Your task to perform on an android device: add a contact Image 0: 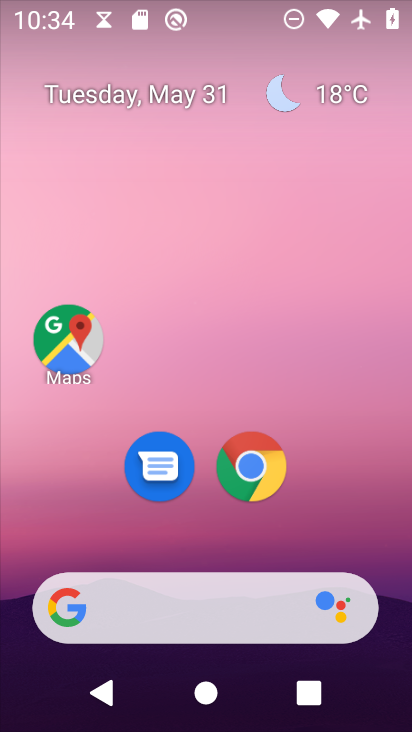
Step 0: drag from (361, 540) to (256, 0)
Your task to perform on an android device: add a contact Image 1: 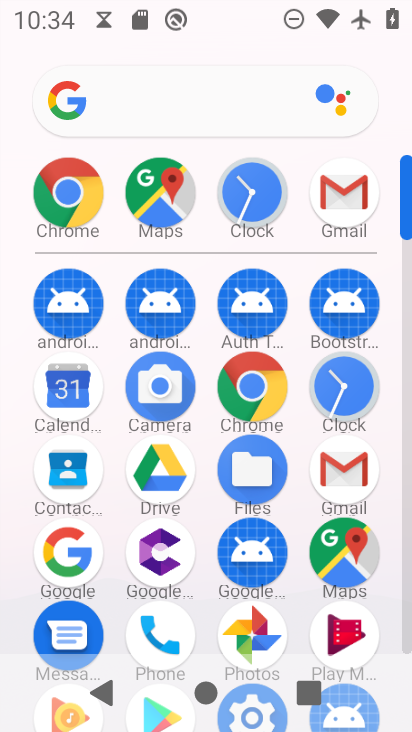
Step 1: drag from (21, 553) to (22, 277)
Your task to perform on an android device: add a contact Image 2: 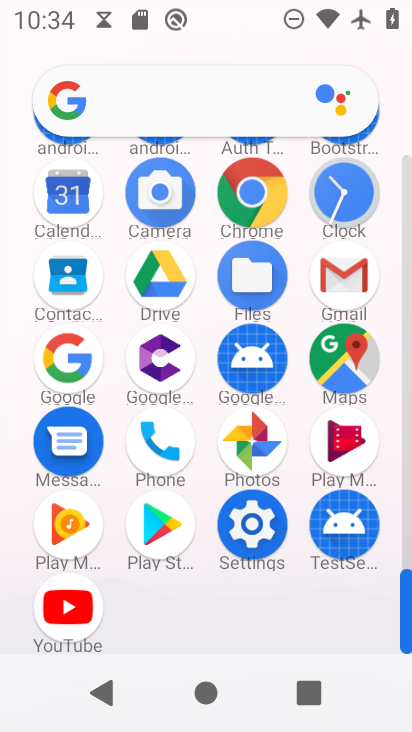
Step 2: click (65, 273)
Your task to perform on an android device: add a contact Image 3: 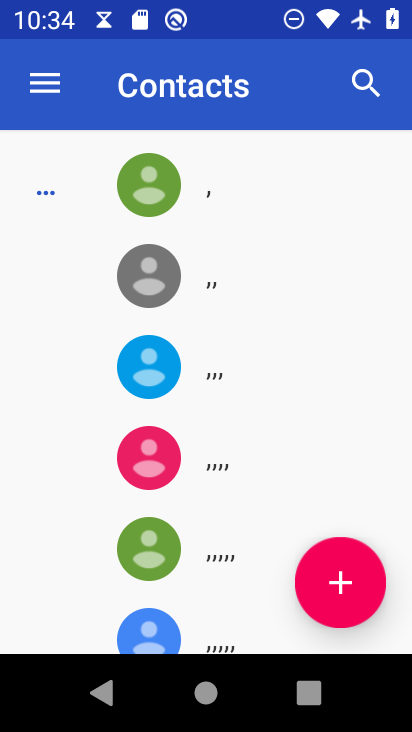
Step 3: click (336, 563)
Your task to perform on an android device: add a contact Image 4: 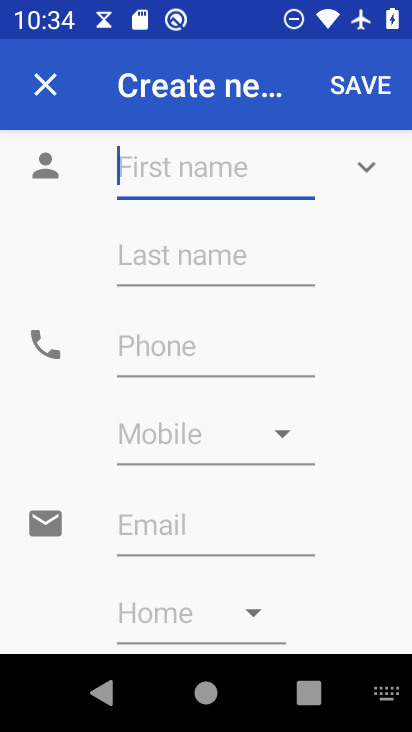
Step 4: type "dfghjk"
Your task to perform on an android device: add a contact Image 5: 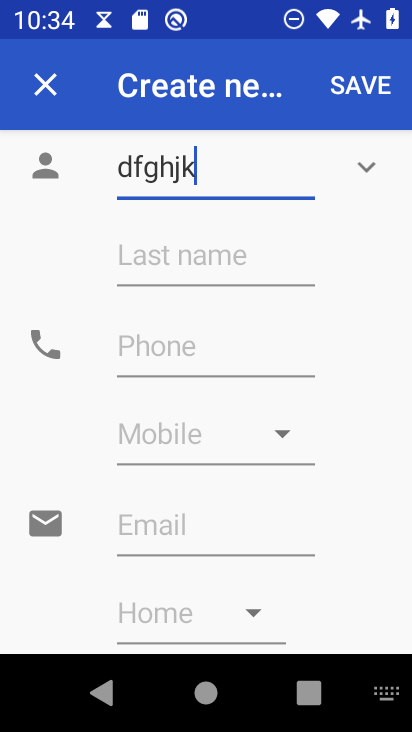
Step 5: type ""
Your task to perform on an android device: add a contact Image 6: 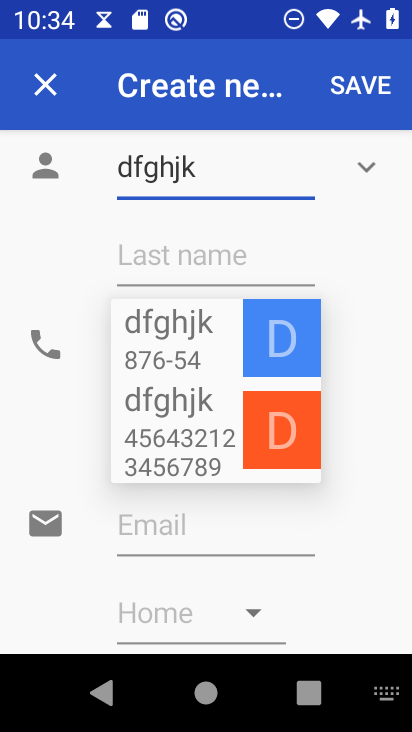
Step 6: click (153, 335)
Your task to perform on an android device: add a contact Image 7: 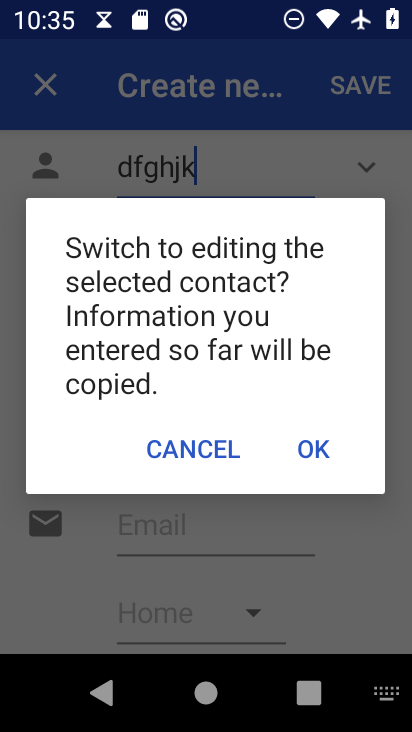
Step 7: click (321, 442)
Your task to perform on an android device: add a contact Image 8: 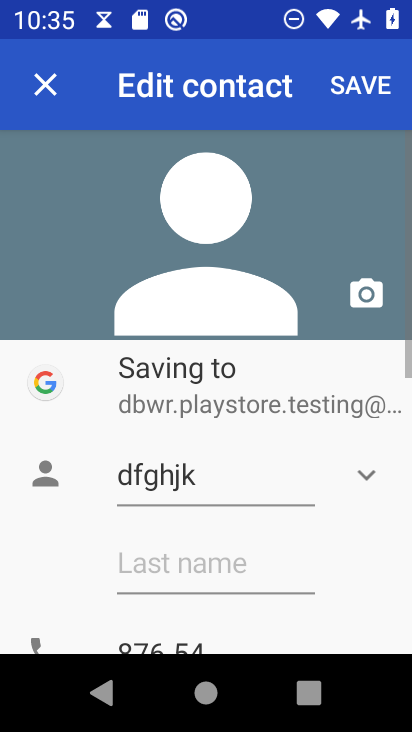
Step 8: click (357, 85)
Your task to perform on an android device: add a contact Image 9: 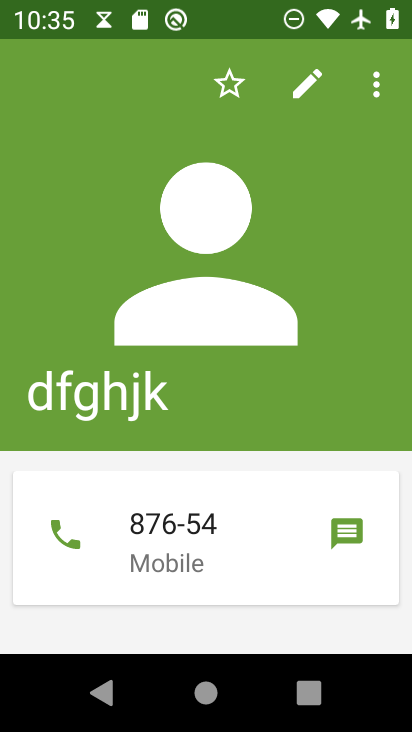
Step 9: task complete